Your task to perform on an android device: open device folders in google photos Image 0: 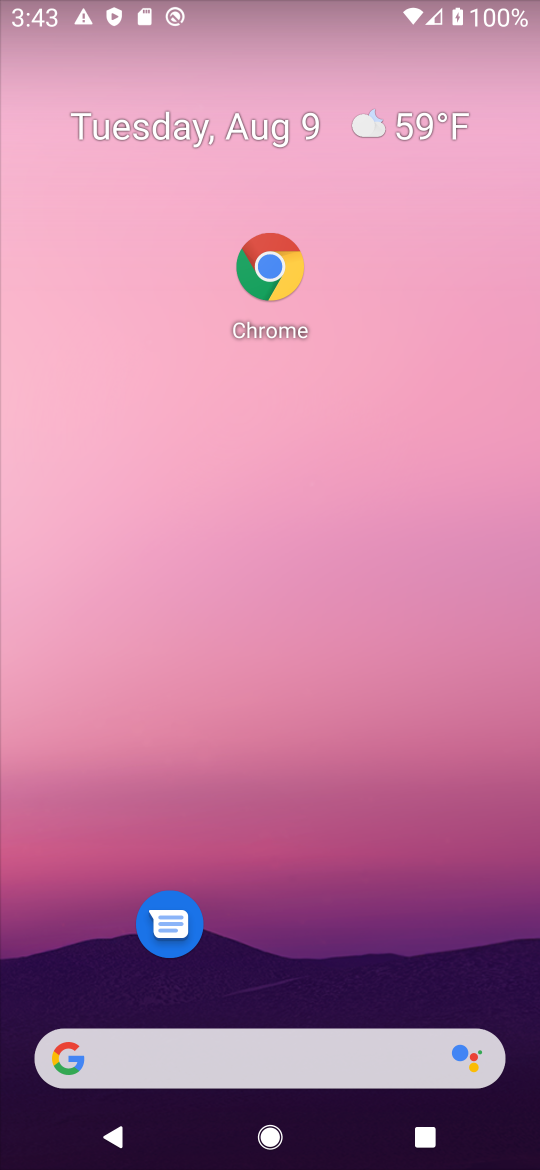
Step 0: drag from (165, 380) to (330, 429)
Your task to perform on an android device: open device folders in google photos Image 1: 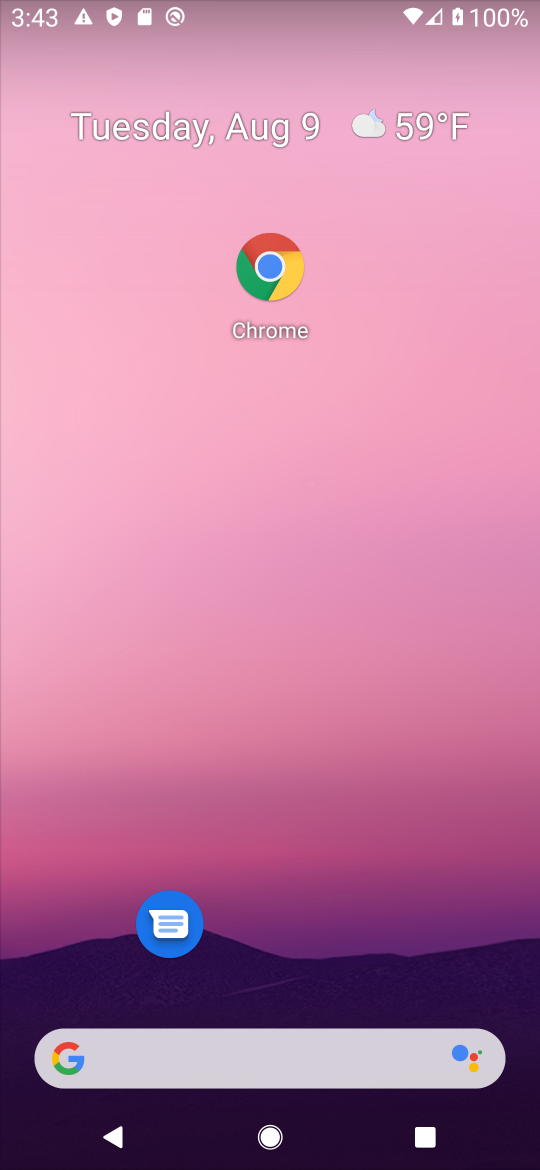
Step 1: drag from (379, 1060) to (300, 257)
Your task to perform on an android device: open device folders in google photos Image 2: 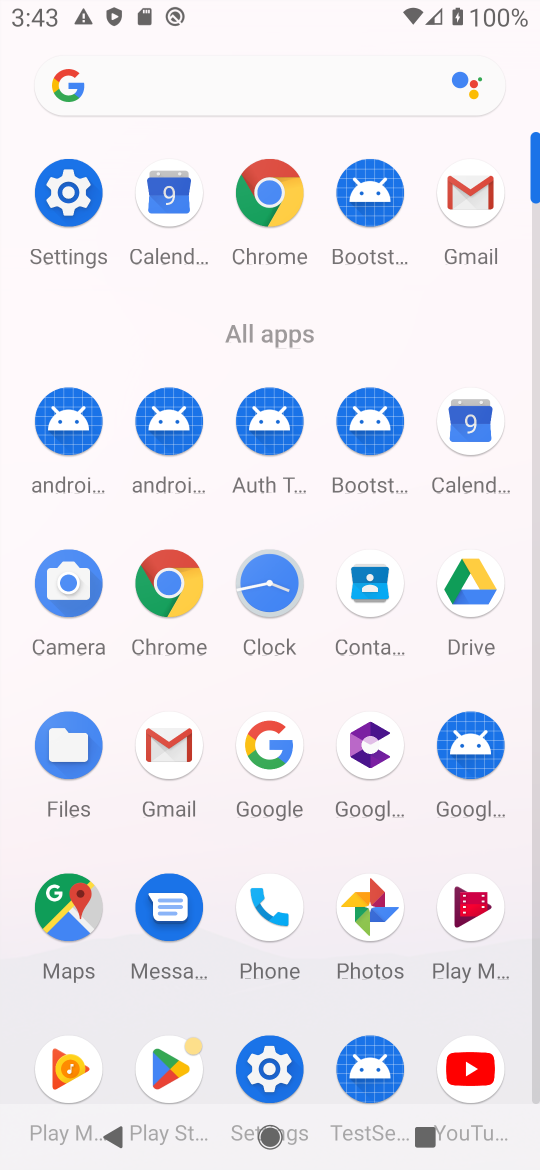
Step 2: click (376, 926)
Your task to perform on an android device: open device folders in google photos Image 3: 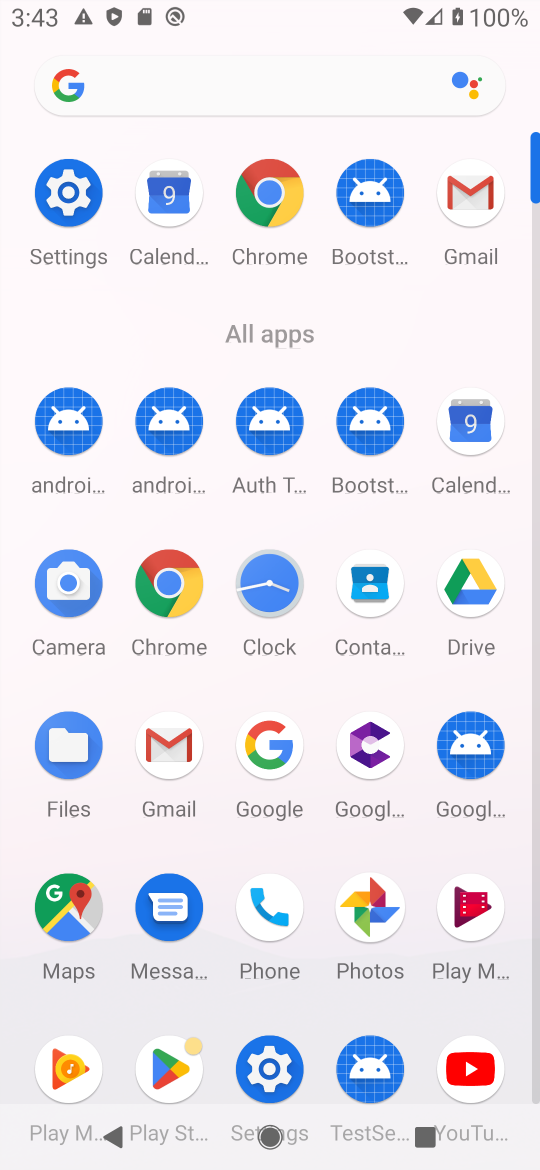
Step 3: click (375, 925)
Your task to perform on an android device: open device folders in google photos Image 4: 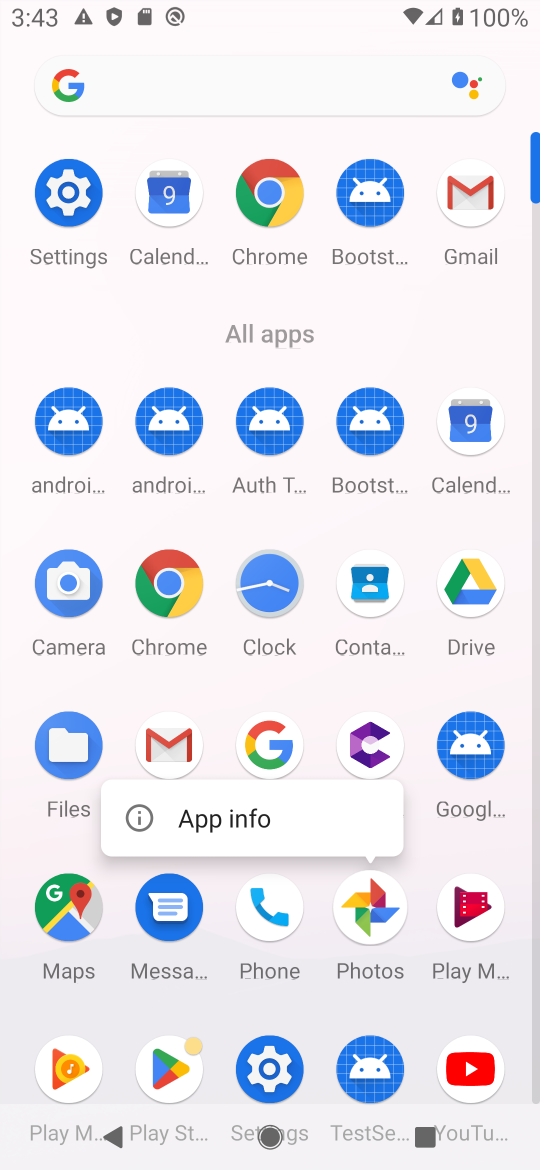
Step 4: click (375, 928)
Your task to perform on an android device: open device folders in google photos Image 5: 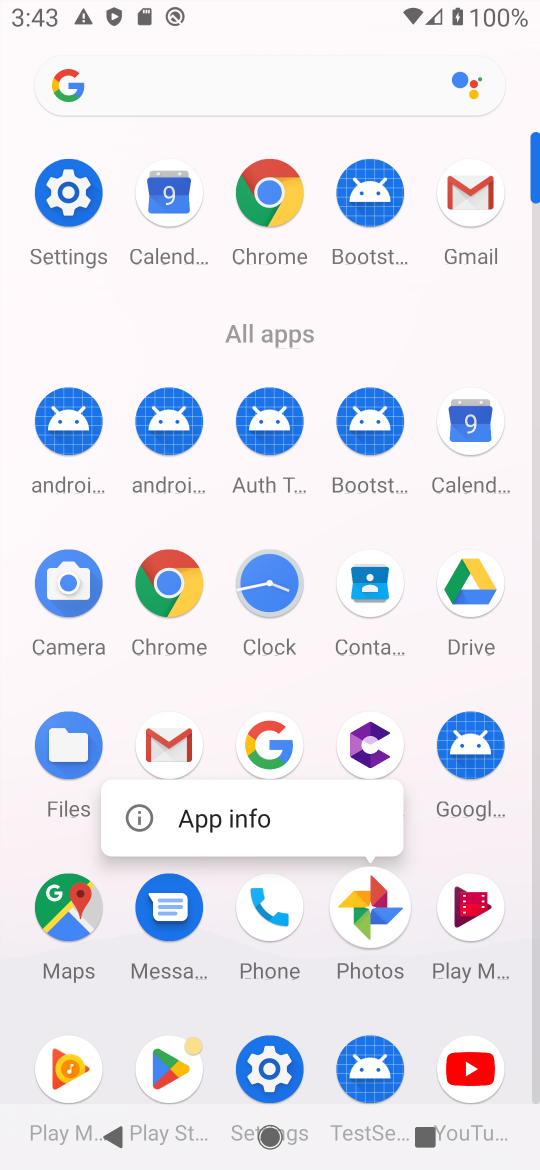
Step 5: click (385, 905)
Your task to perform on an android device: open device folders in google photos Image 6: 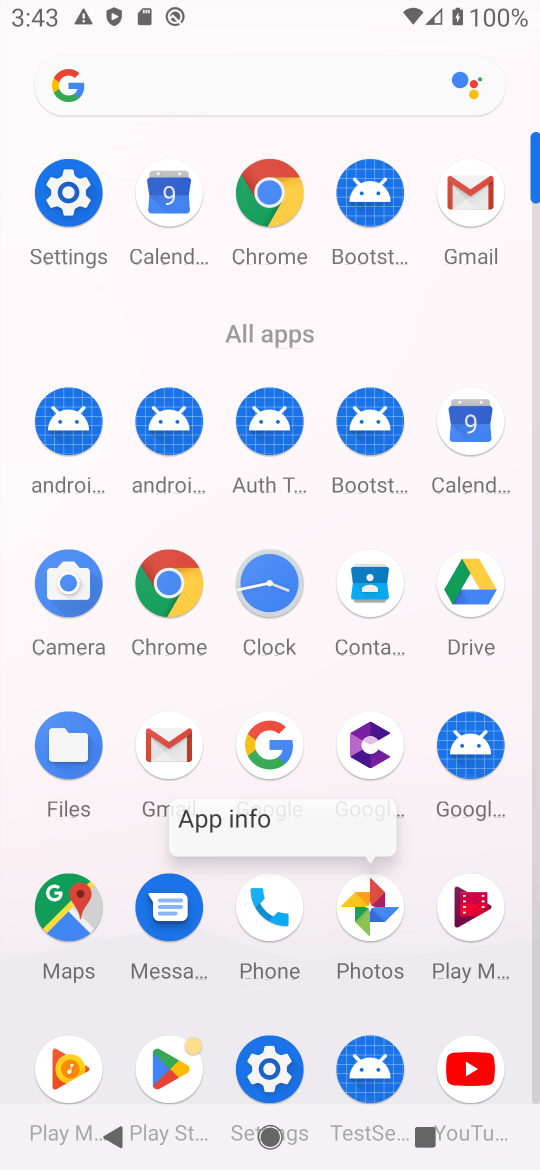
Step 6: click (382, 920)
Your task to perform on an android device: open device folders in google photos Image 7: 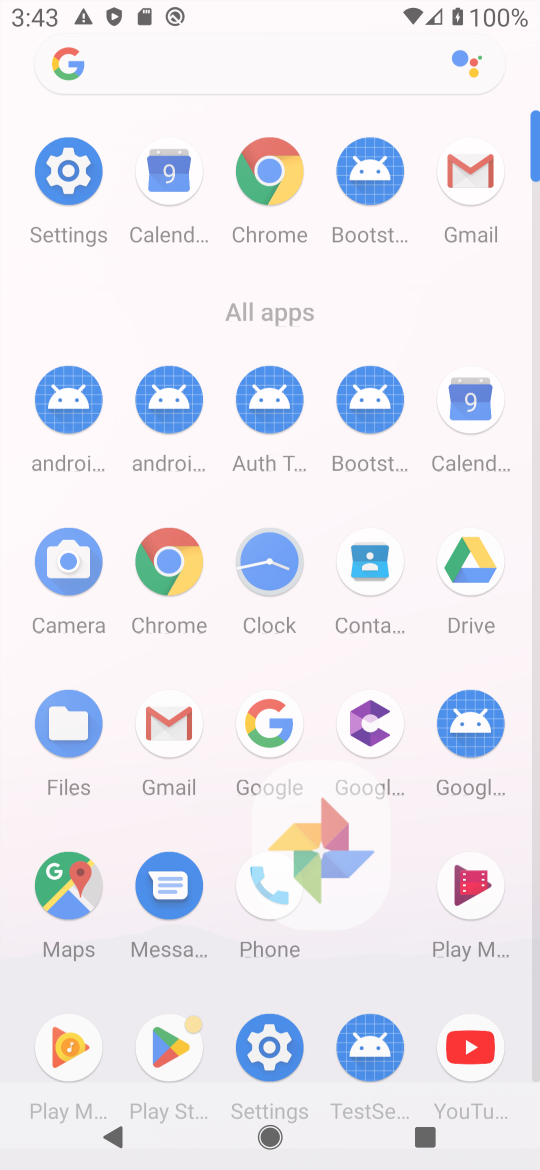
Step 7: click (377, 924)
Your task to perform on an android device: open device folders in google photos Image 8: 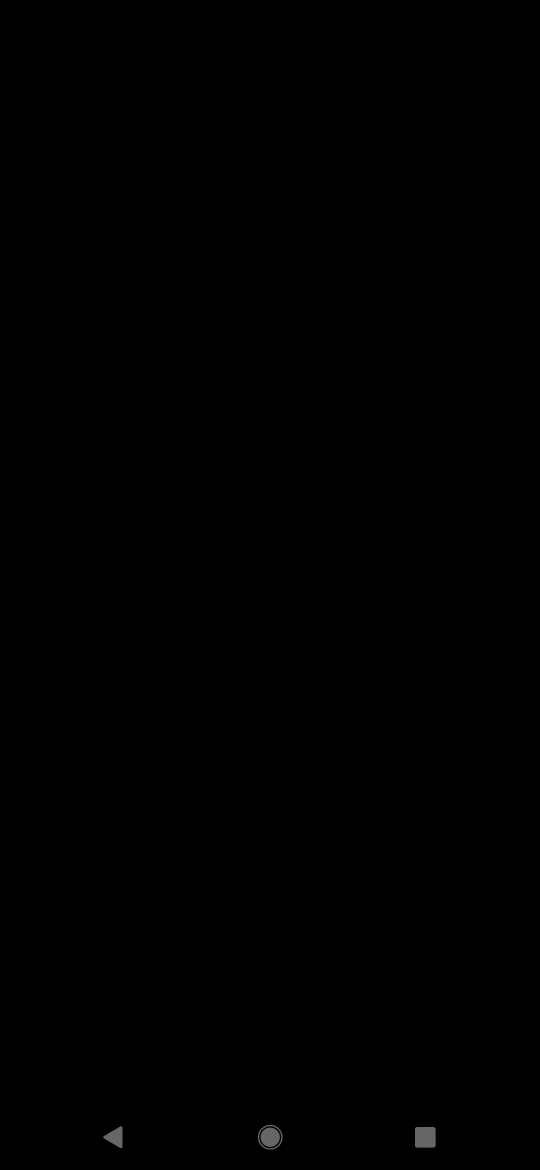
Step 8: click (375, 924)
Your task to perform on an android device: open device folders in google photos Image 9: 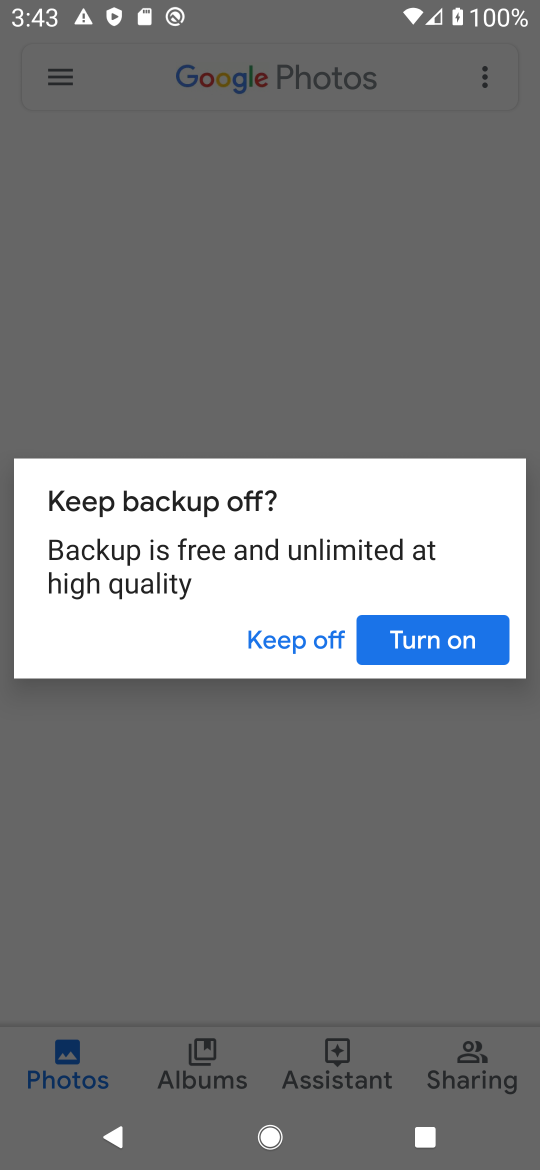
Step 9: click (295, 632)
Your task to perform on an android device: open device folders in google photos Image 10: 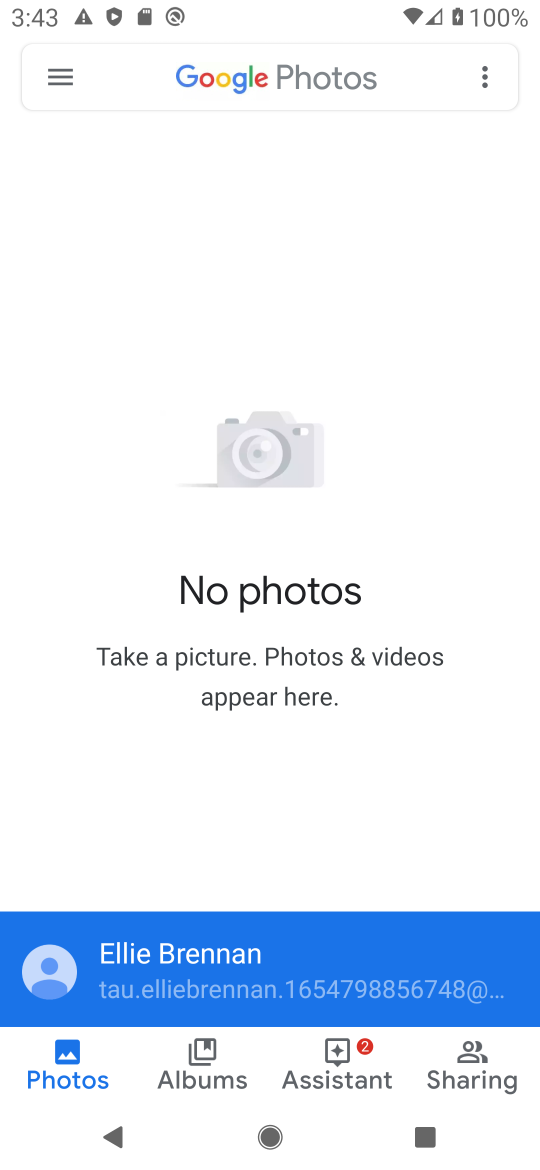
Step 10: drag from (66, 82) to (273, 943)
Your task to perform on an android device: open device folders in google photos Image 11: 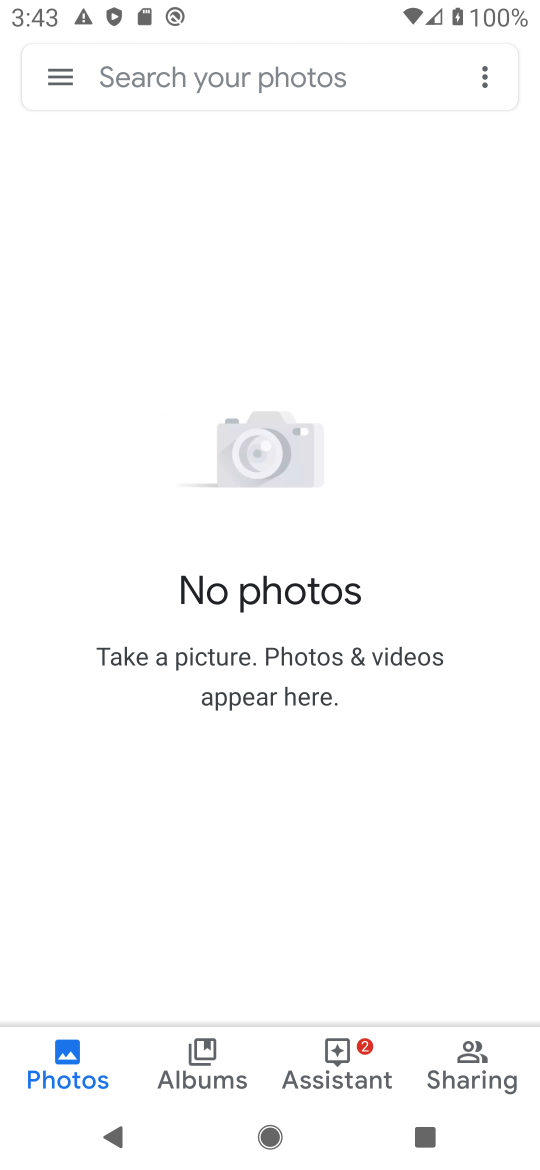
Step 11: drag from (57, 66) to (397, 840)
Your task to perform on an android device: open device folders in google photos Image 12: 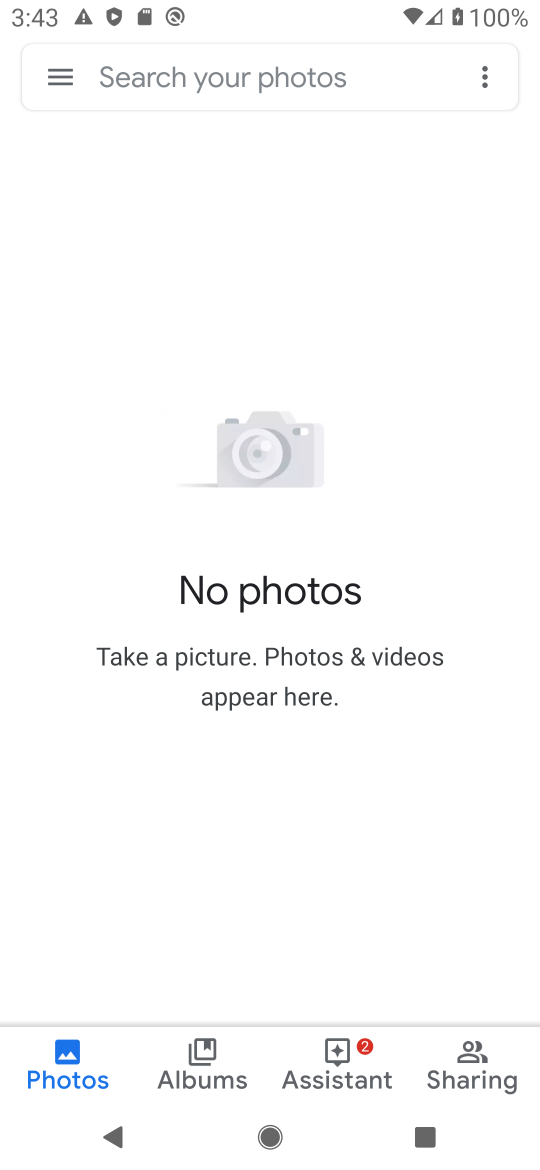
Step 12: drag from (68, 81) to (225, 637)
Your task to perform on an android device: open device folders in google photos Image 13: 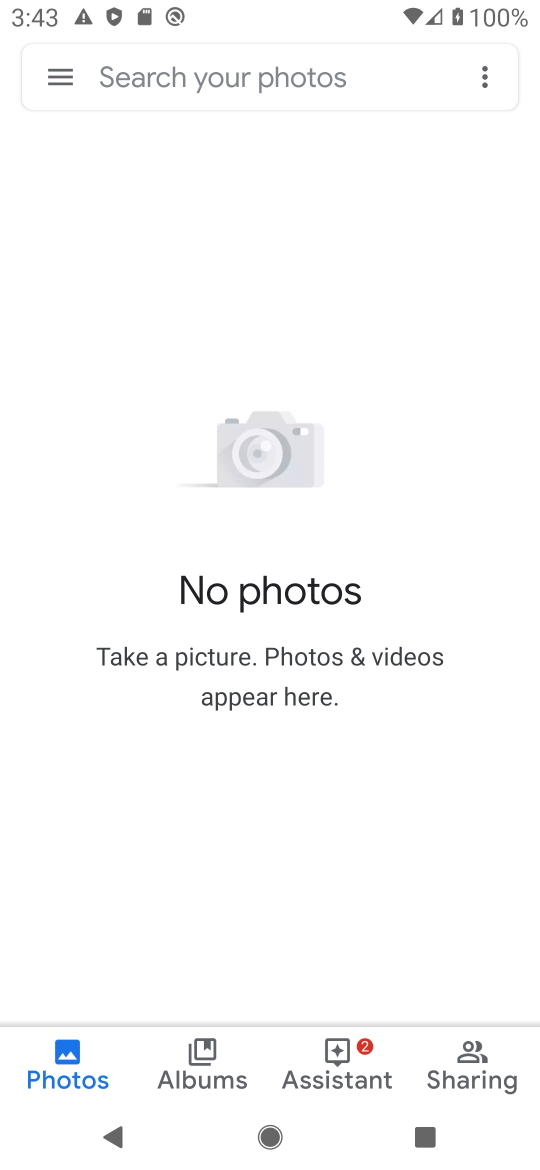
Step 13: click (61, 87)
Your task to perform on an android device: open device folders in google photos Image 14: 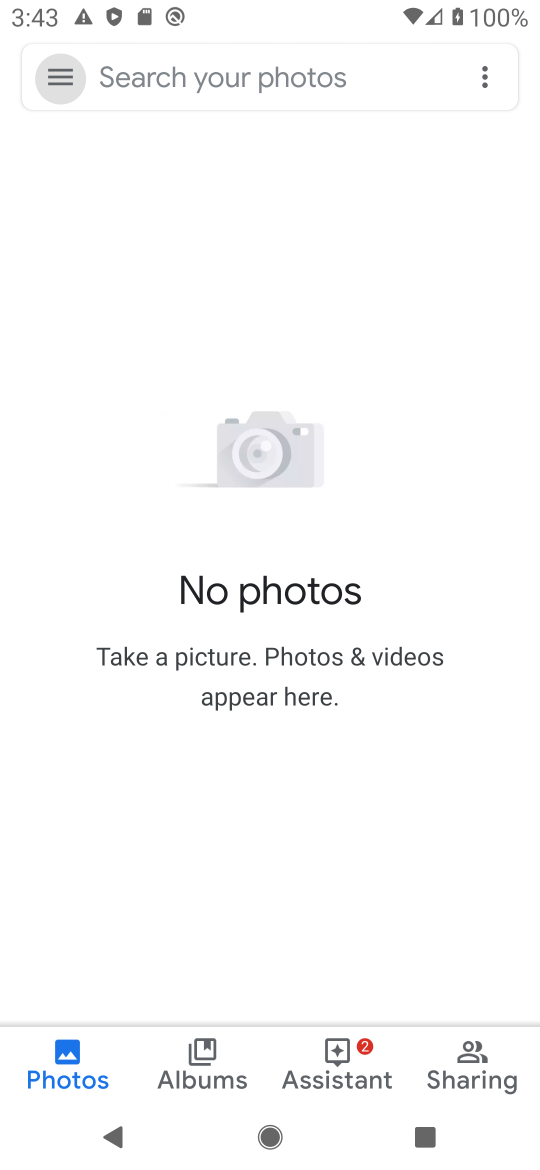
Step 14: click (63, 85)
Your task to perform on an android device: open device folders in google photos Image 15: 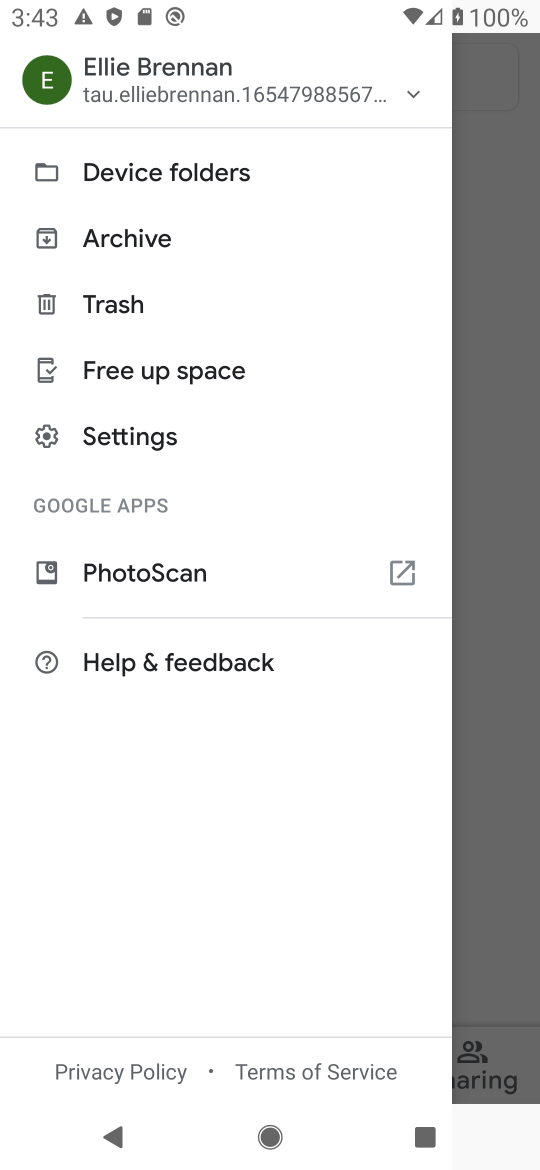
Step 15: click (134, 174)
Your task to perform on an android device: open device folders in google photos Image 16: 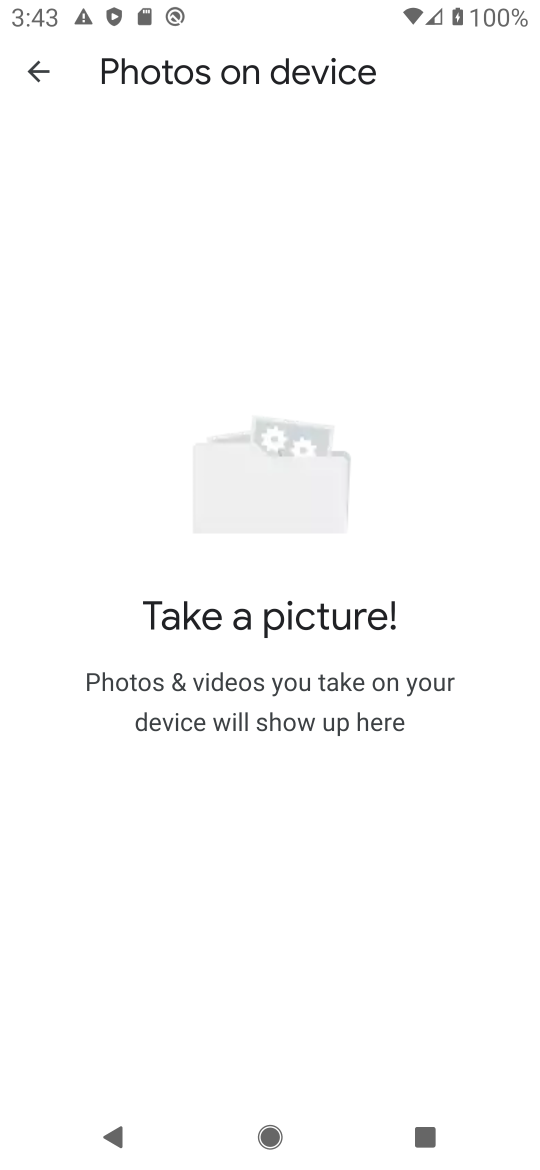
Step 16: task complete